Your task to perform on an android device: Open internet settings Image 0: 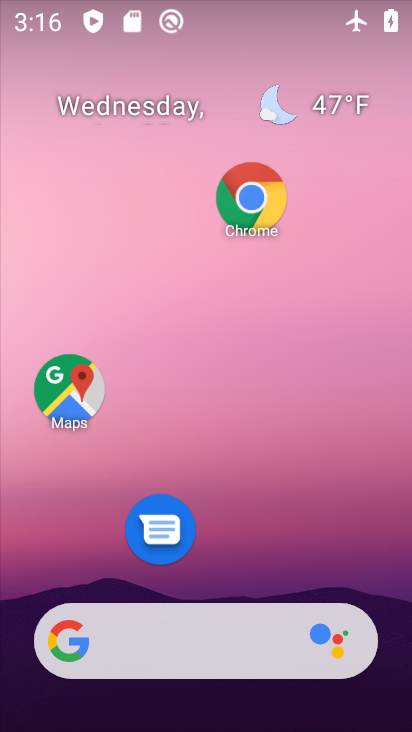
Step 0: drag from (260, 384) to (228, 39)
Your task to perform on an android device: Open internet settings Image 1: 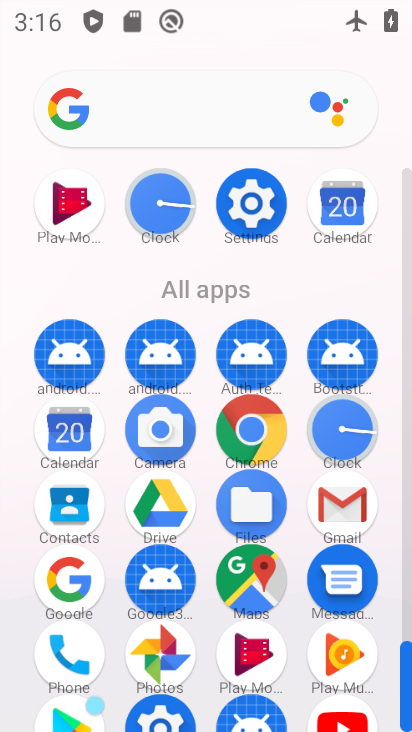
Step 1: click (259, 217)
Your task to perform on an android device: Open internet settings Image 2: 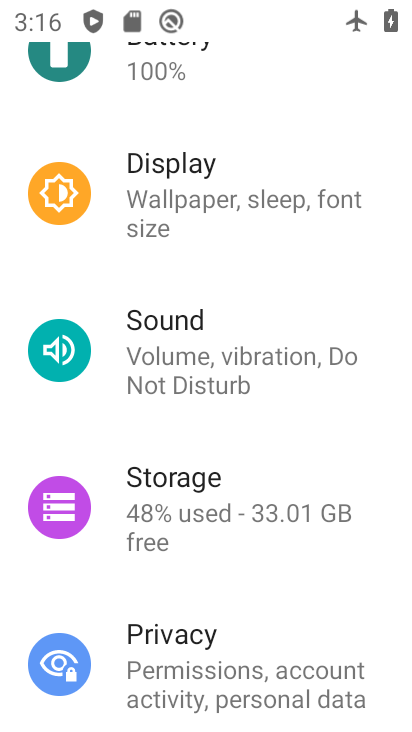
Step 2: drag from (234, 112) to (234, 475)
Your task to perform on an android device: Open internet settings Image 3: 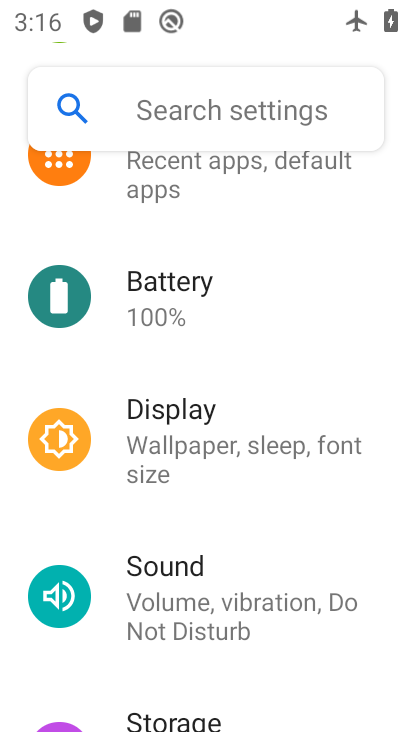
Step 3: drag from (251, 220) to (260, 471)
Your task to perform on an android device: Open internet settings Image 4: 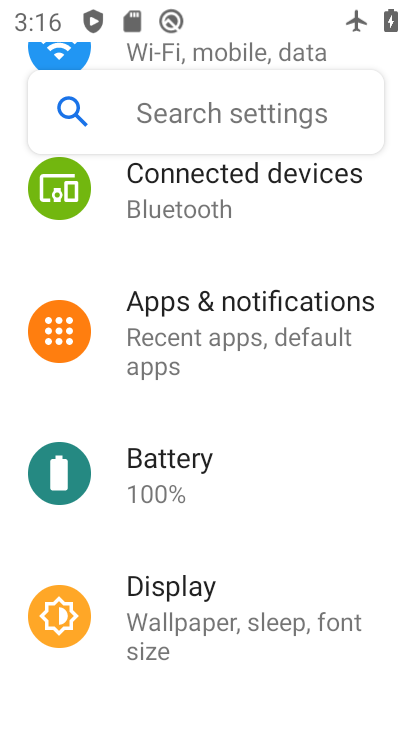
Step 4: drag from (247, 287) to (252, 378)
Your task to perform on an android device: Open internet settings Image 5: 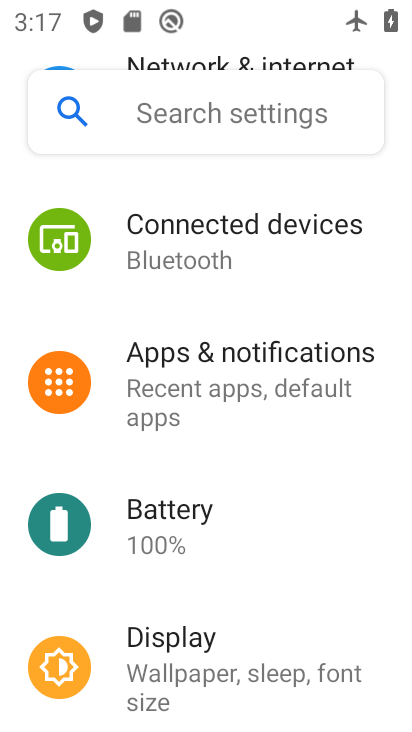
Step 5: drag from (277, 270) to (267, 541)
Your task to perform on an android device: Open internet settings Image 6: 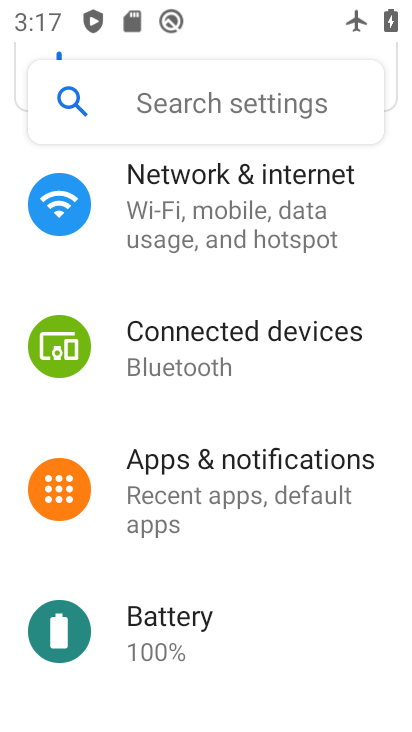
Step 6: click (258, 208)
Your task to perform on an android device: Open internet settings Image 7: 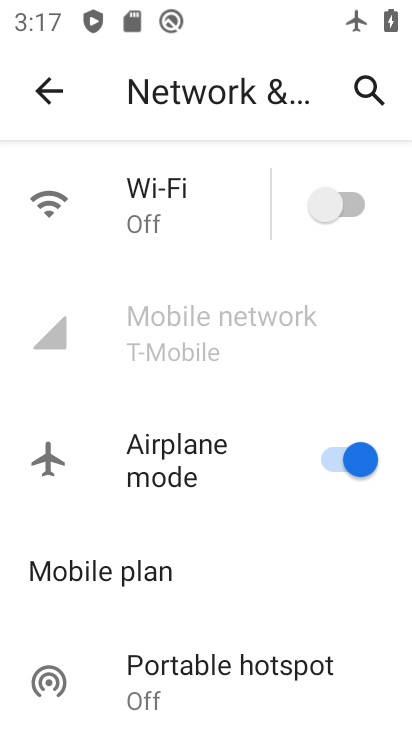
Step 7: task complete